Your task to perform on an android device: Open Maps and search for coffee Image 0: 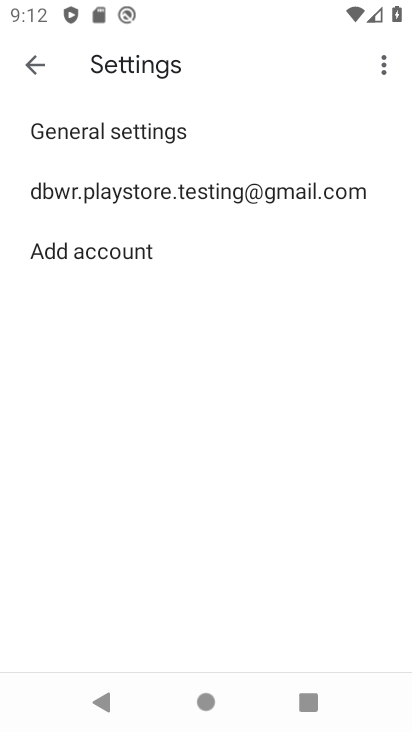
Step 0: press back button
Your task to perform on an android device: Open Maps and search for coffee Image 1: 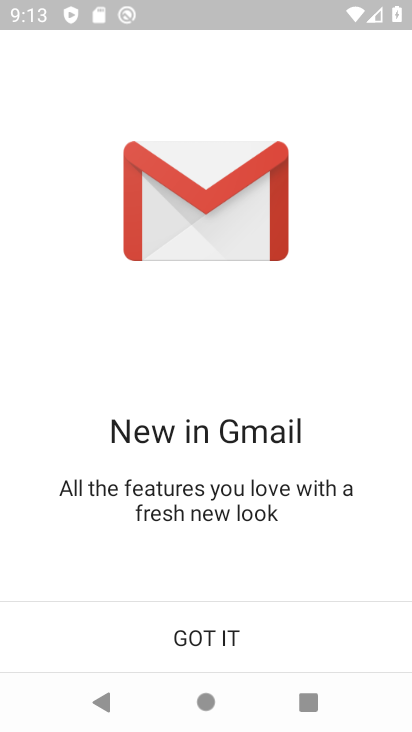
Step 1: press home button
Your task to perform on an android device: Open Maps and search for coffee Image 2: 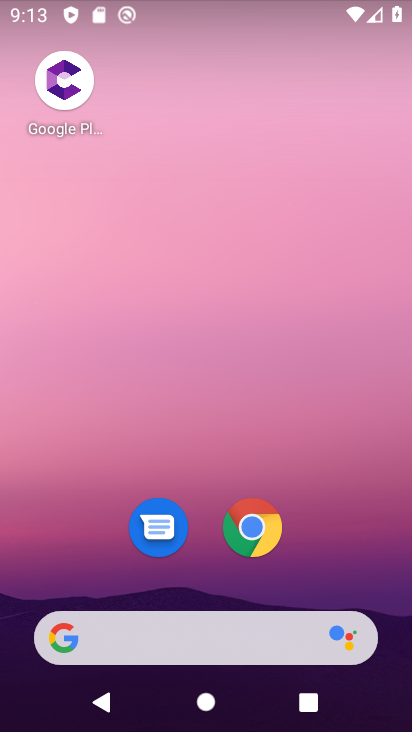
Step 2: drag from (396, 711) to (362, 244)
Your task to perform on an android device: Open Maps and search for coffee Image 3: 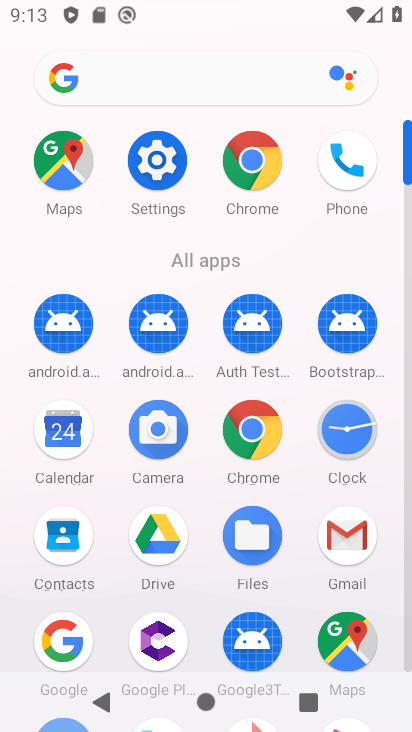
Step 3: click (340, 620)
Your task to perform on an android device: Open Maps and search for coffee Image 4: 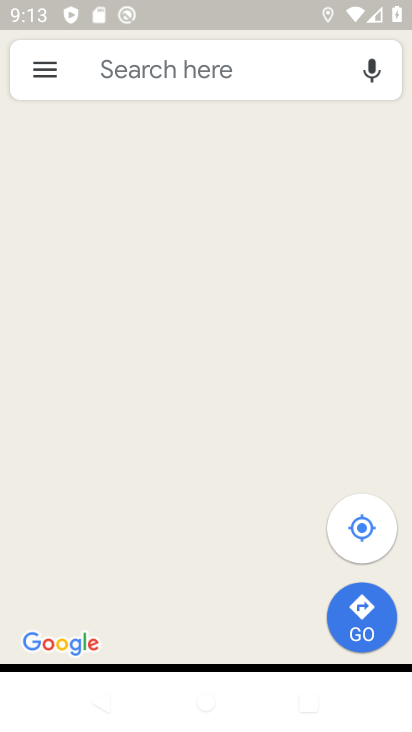
Step 4: click (156, 66)
Your task to perform on an android device: Open Maps and search for coffee Image 5: 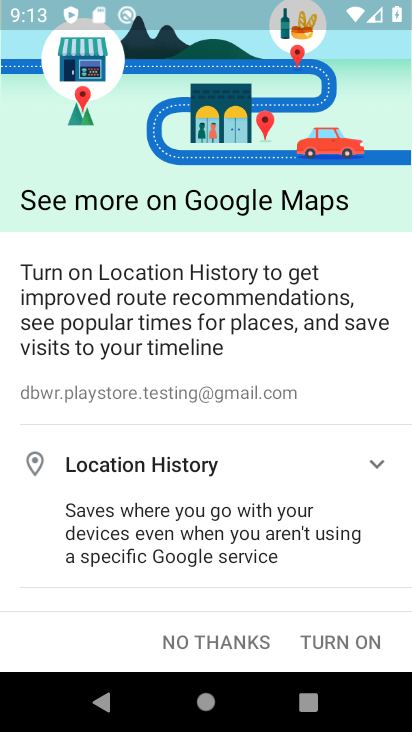
Step 5: click (349, 637)
Your task to perform on an android device: Open Maps and search for coffee Image 6: 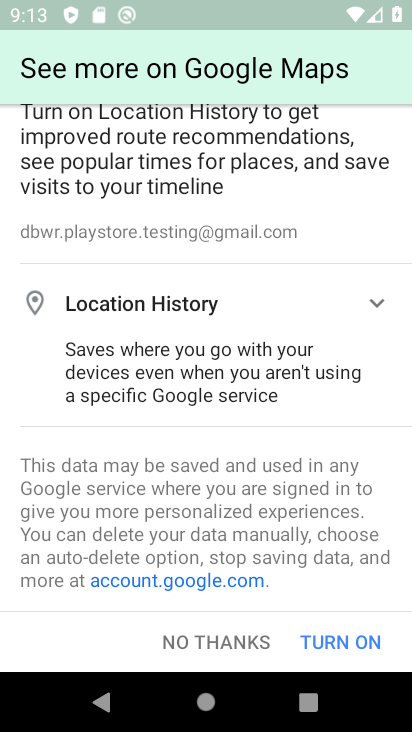
Step 6: press back button
Your task to perform on an android device: Open Maps and search for coffee Image 7: 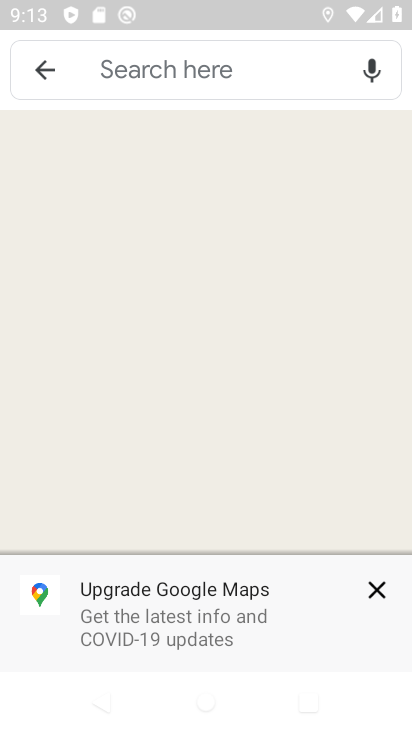
Step 7: click (145, 69)
Your task to perform on an android device: Open Maps and search for coffee Image 8: 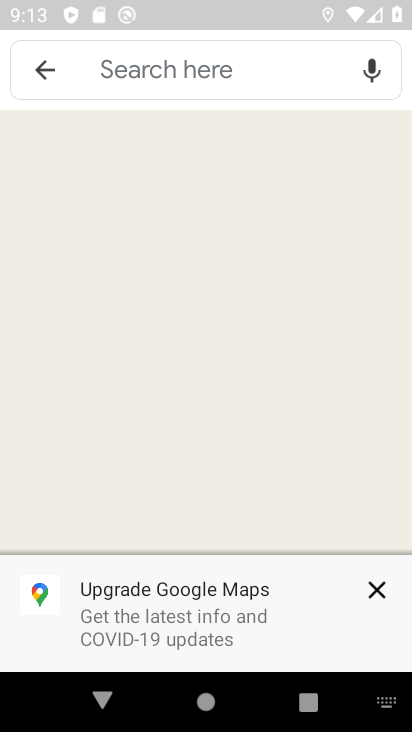
Step 8: type "coffee"
Your task to perform on an android device: Open Maps and search for coffee Image 9: 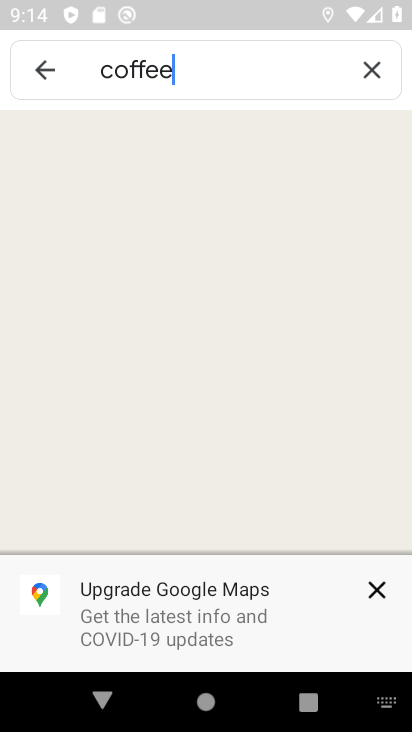
Step 9: task complete